Your task to perform on an android device: Open Google Image 0: 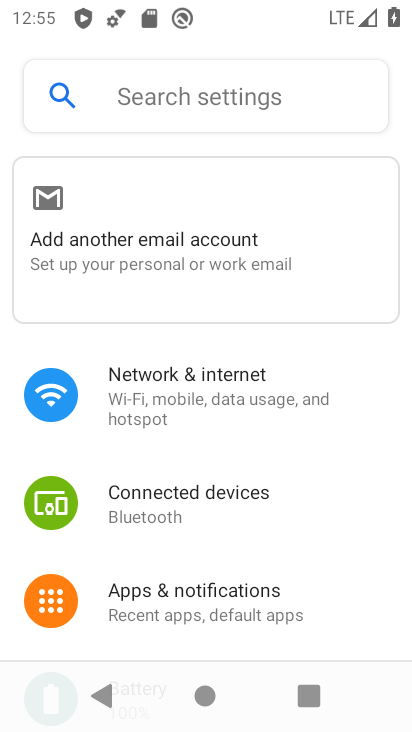
Step 0: press home button
Your task to perform on an android device: Open Google Image 1: 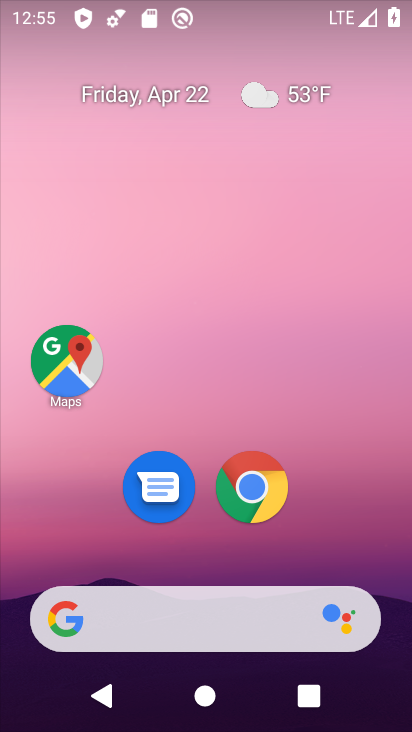
Step 1: click (155, 631)
Your task to perform on an android device: Open Google Image 2: 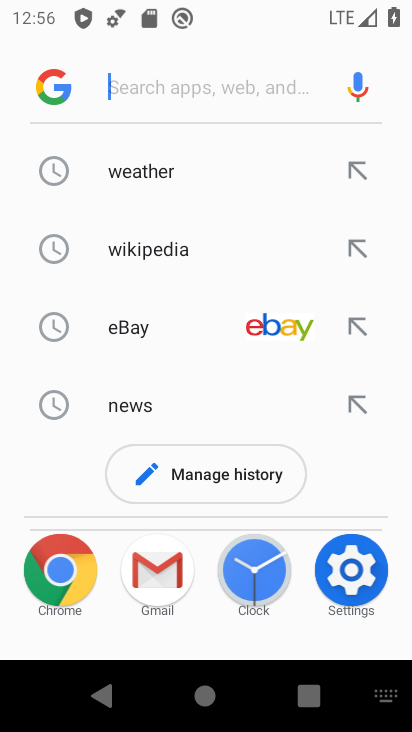
Step 2: task complete